Your task to perform on an android device: View the shopping cart on bestbuy.com. Image 0: 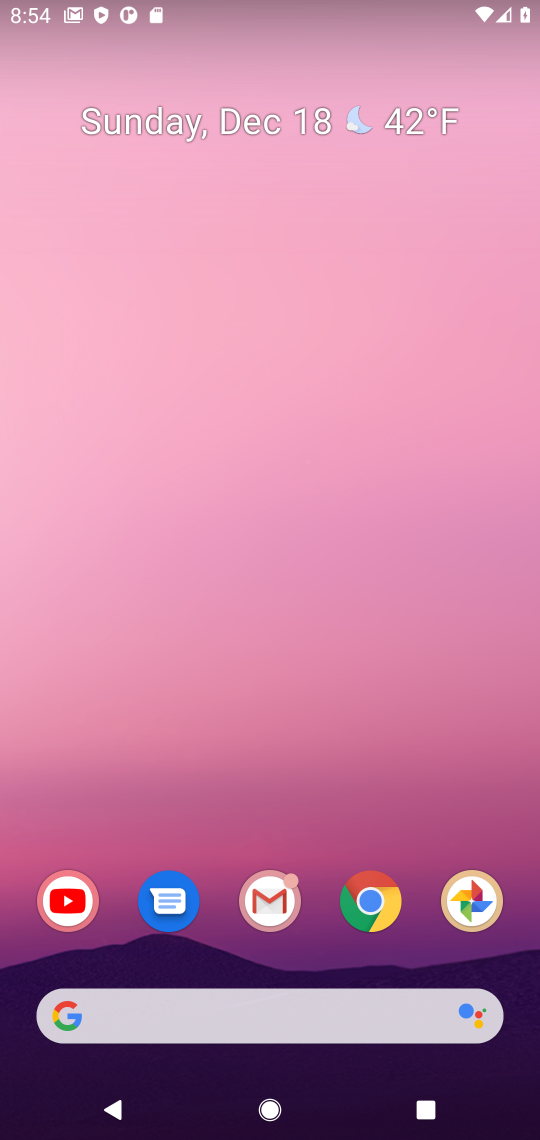
Step 0: click (370, 1003)
Your task to perform on an android device: View the shopping cart on bestbuy.com. Image 1: 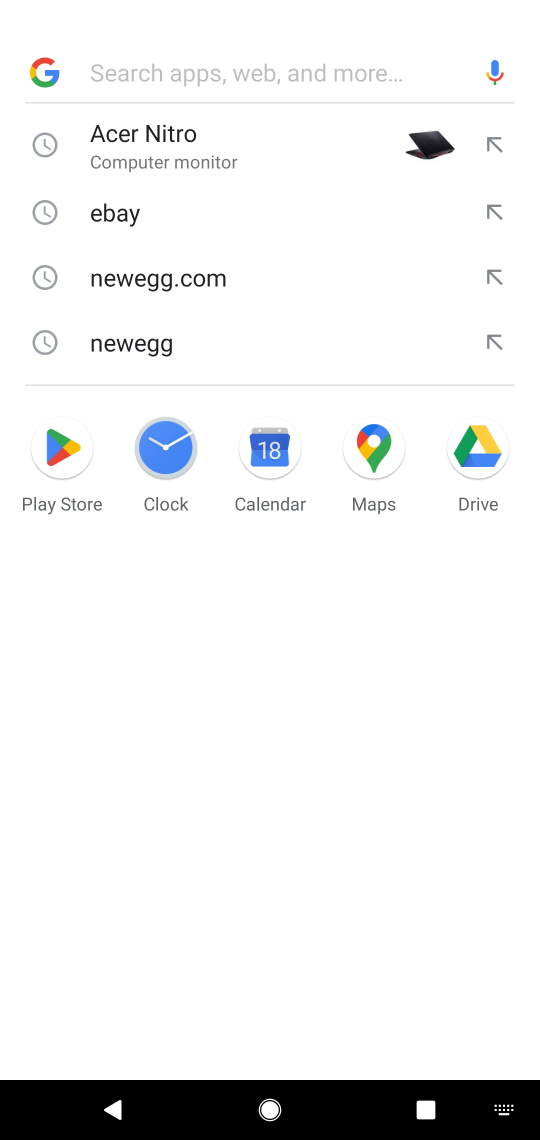
Step 1: type "bestbuy"
Your task to perform on an android device: View the shopping cart on bestbuy.com. Image 2: 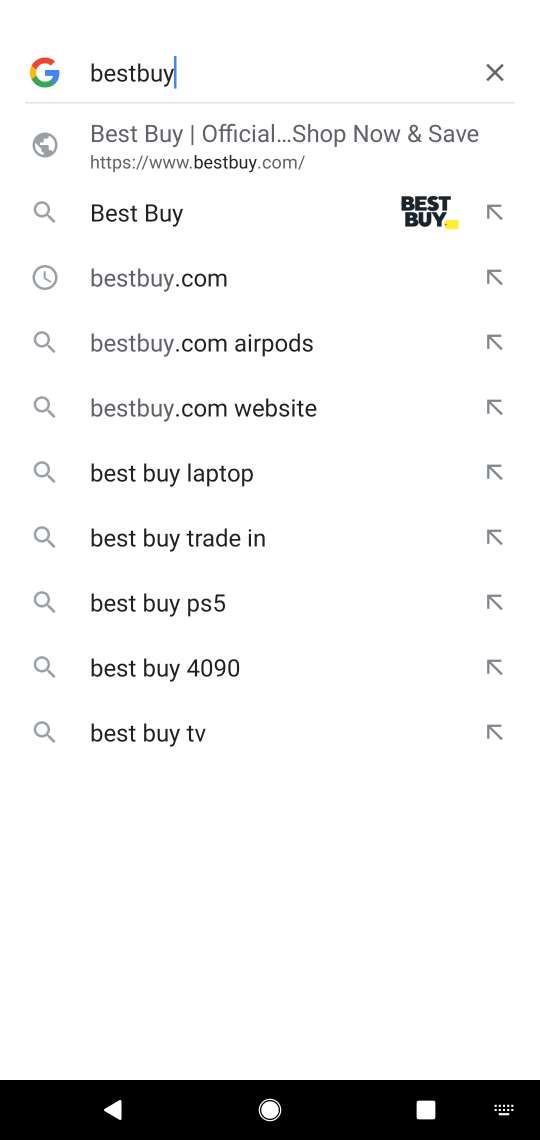
Step 2: click (218, 182)
Your task to perform on an android device: View the shopping cart on bestbuy.com. Image 3: 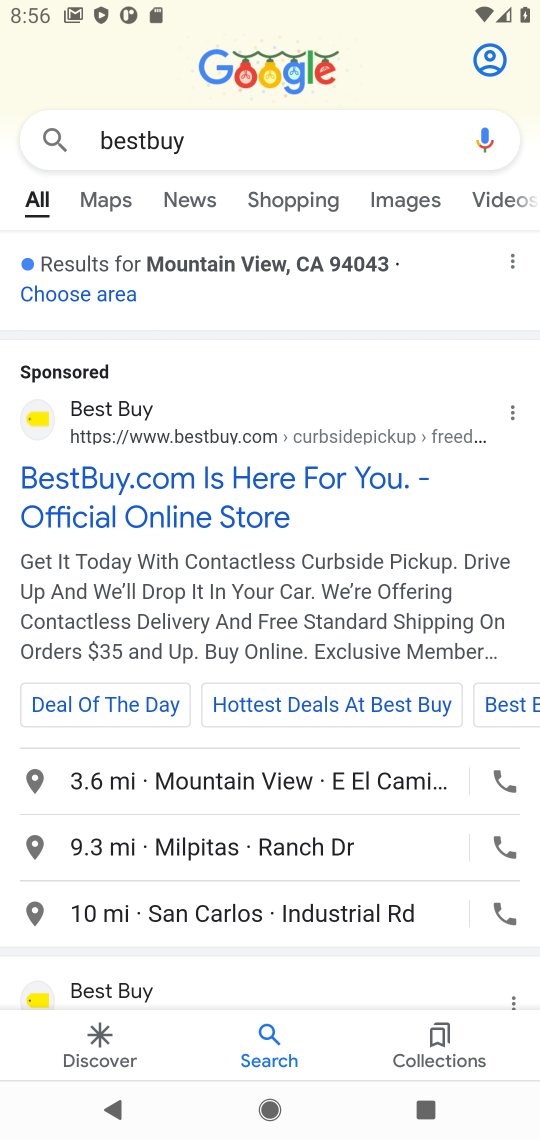
Step 3: click (312, 510)
Your task to perform on an android device: View the shopping cart on bestbuy.com. Image 4: 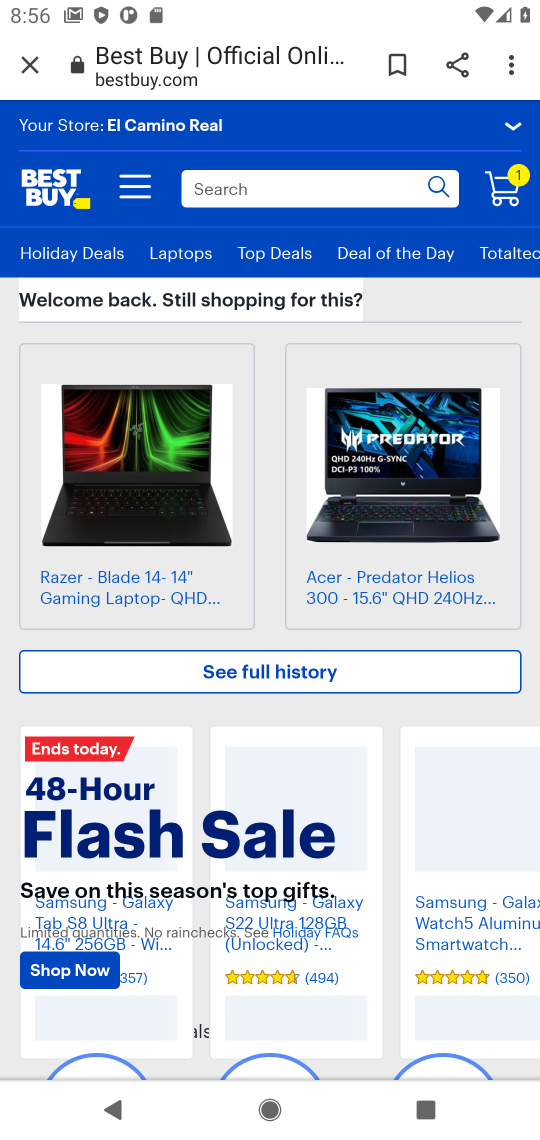
Step 4: click (333, 193)
Your task to perform on an android device: View the shopping cart on bestbuy.com. Image 5: 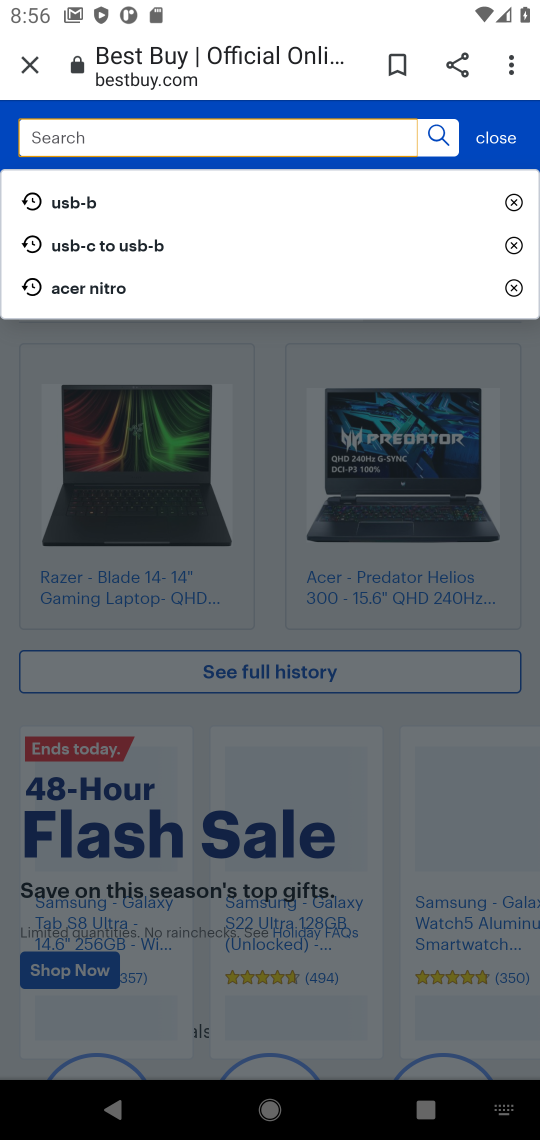
Step 5: click (491, 156)
Your task to perform on an android device: View the shopping cart on bestbuy.com. Image 6: 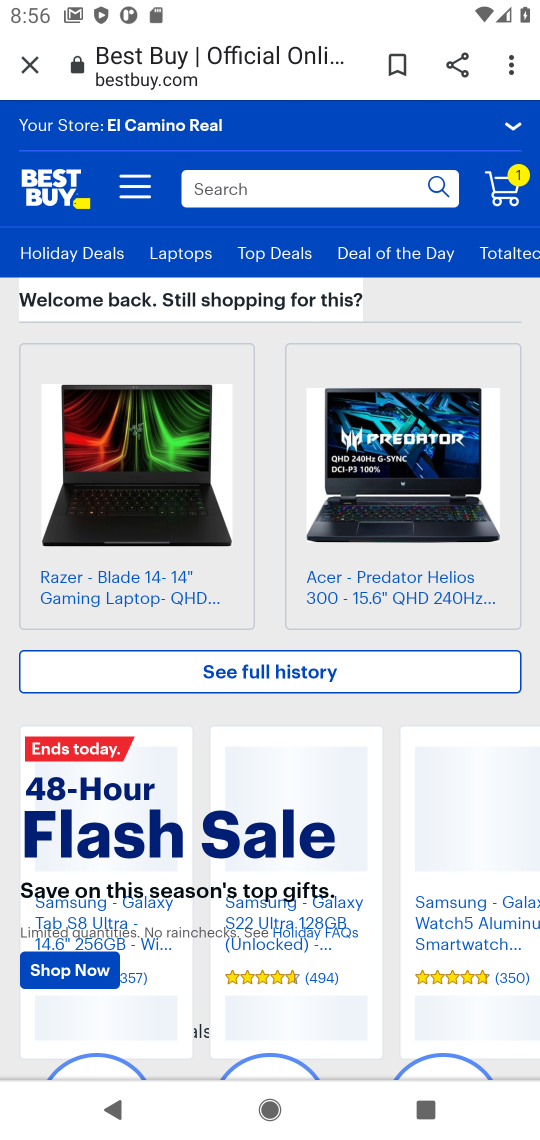
Step 6: click (509, 185)
Your task to perform on an android device: View the shopping cart on bestbuy.com. Image 7: 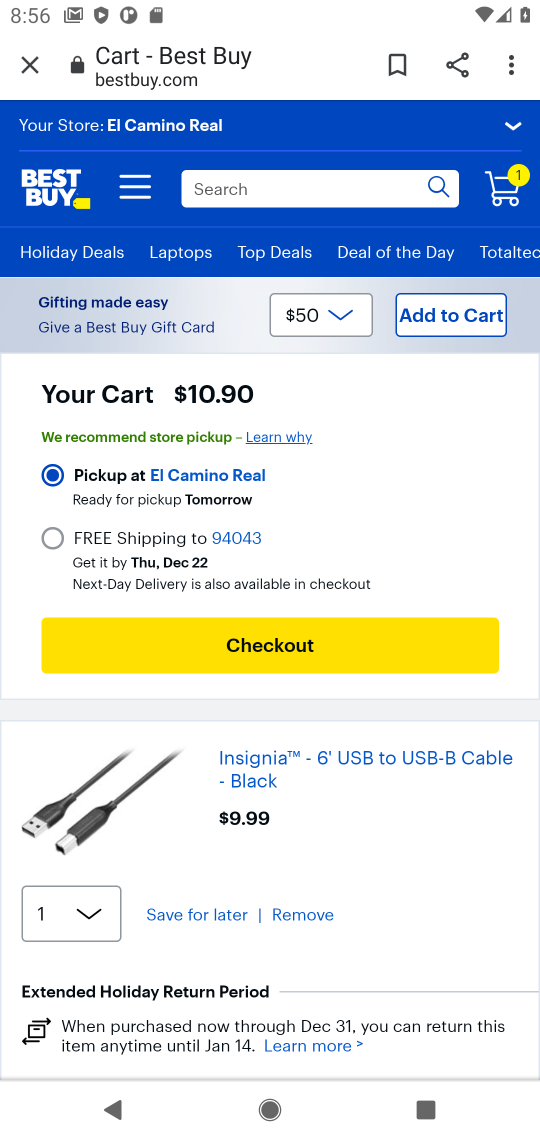
Step 7: task complete